Your task to perform on an android device: turn on translation in the chrome app Image 0: 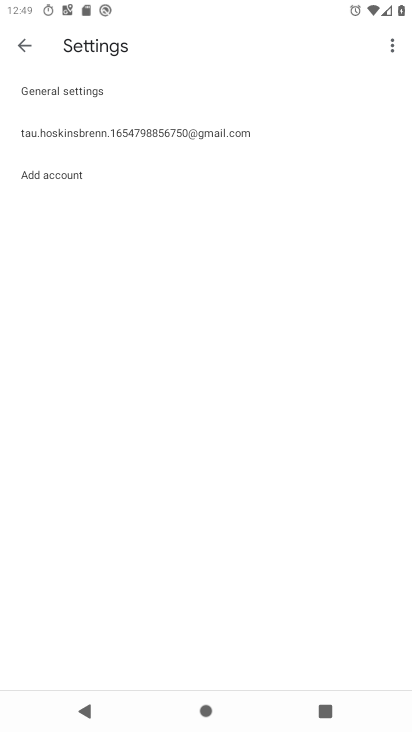
Step 0: press home button
Your task to perform on an android device: turn on translation in the chrome app Image 1: 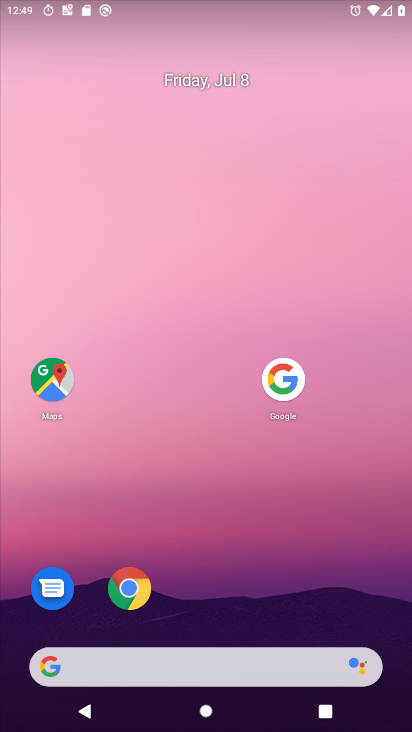
Step 1: click (134, 592)
Your task to perform on an android device: turn on translation in the chrome app Image 2: 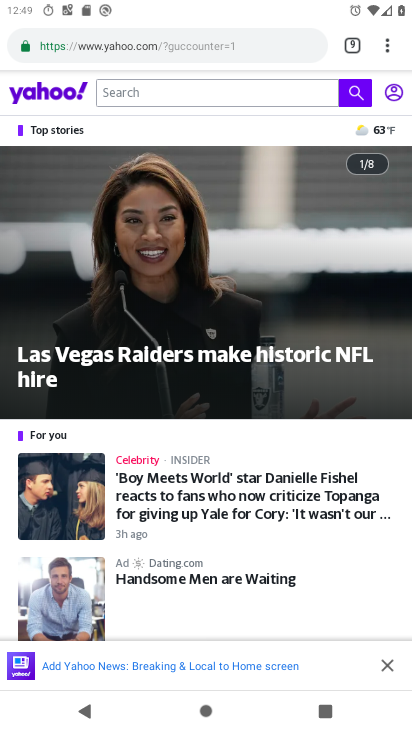
Step 2: drag from (388, 42) to (231, 545)
Your task to perform on an android device: turn on translation in the chrome app Image 3: 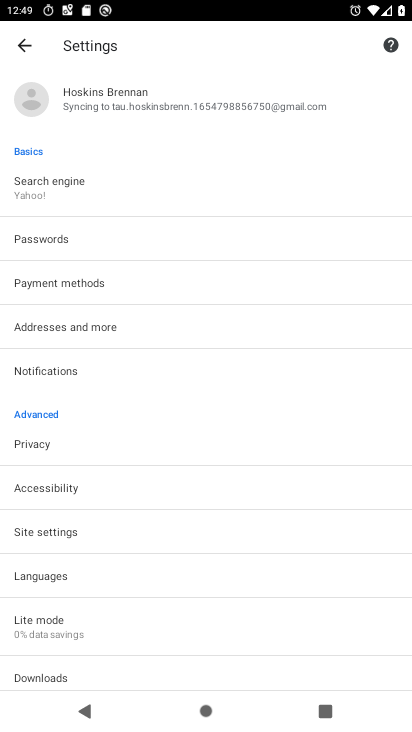
Step 3: click (67, 574)
Your task to perform on an android device: turn on translation in the chrome app Image 4: 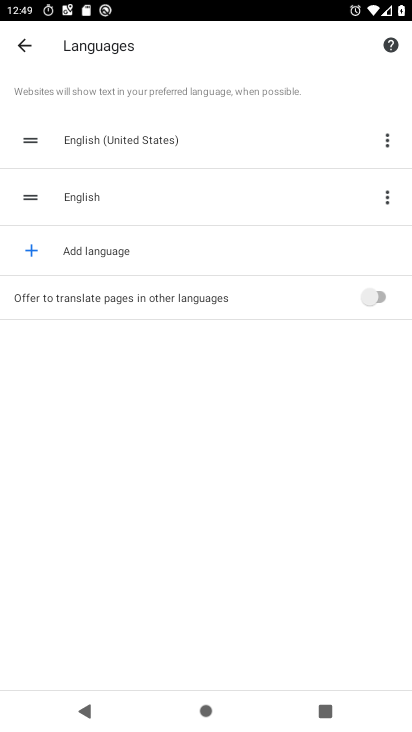
Step 4: click (388, 293)
Your task to perform on an android device: turn on translation in the chrome app Image 5: 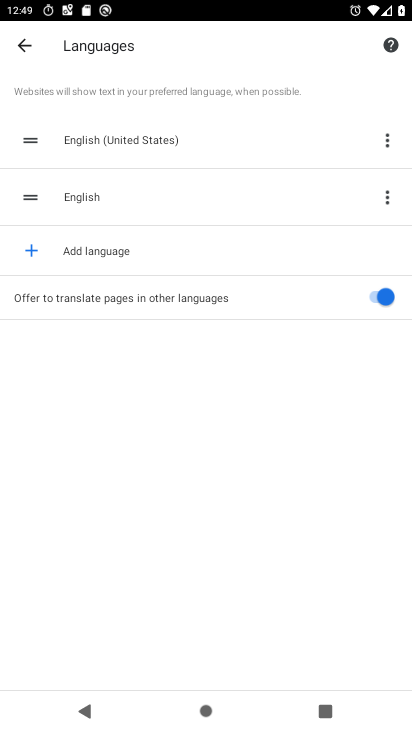
Step 5: task complete